Your task to perform on an android device: find which apps use the phone's location Image 0: 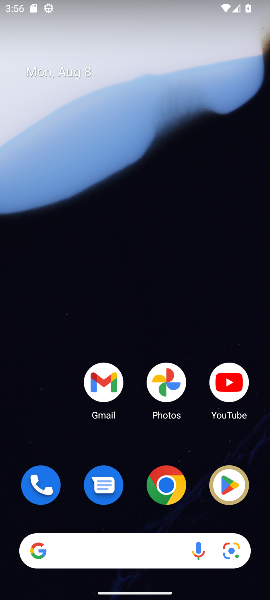
Step 0: drag from (41, 212) to (33, 186)
Your task to perform on an android device: find which apps use the phone's location Image 1: 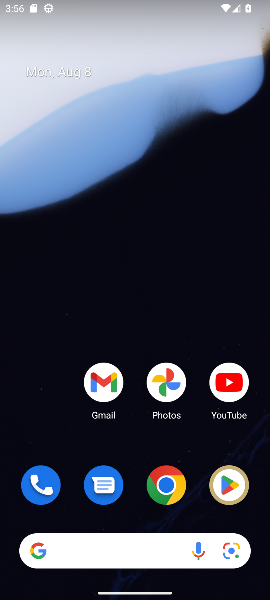
Step 1: drag from (182, 522) to (100, 163)
Your task to perform on an android device: find which apps use the phone's location Image 2: 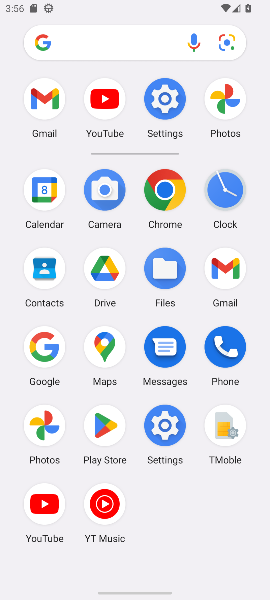
Step 2: drag from (173, 550) to (124, 245)
Your task to perform on an android device: find which apps use the phone's location Image 3: 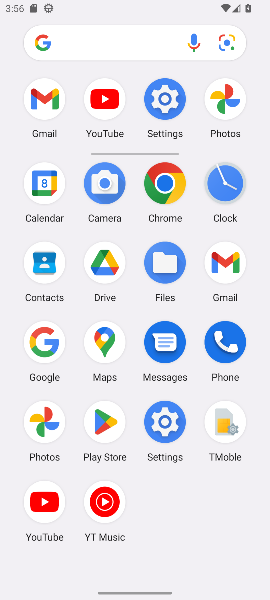
Step 3: drag from (135, 425) to (137, 305)
Your task to perform on an android device: find which apps use the phone's location Image 4: 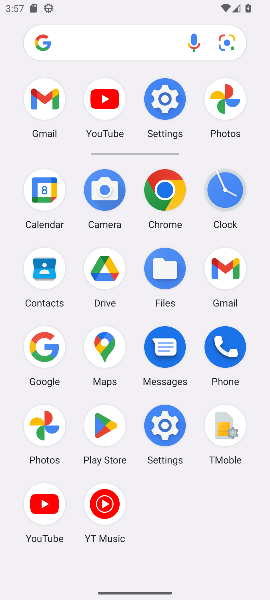
Step 4: click (170, 426)
Your task to perform on an android device: find which apps use the phone's location Image 5: 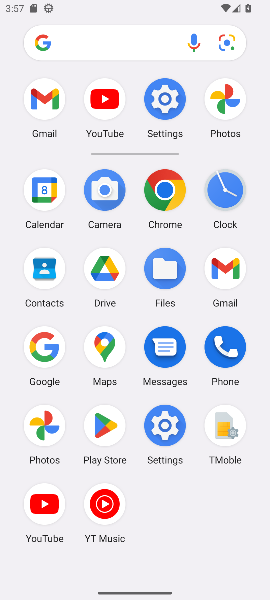
Step 5: click (164, 431)
Your task to perform on an android device: find which apps use the phone's location Image 6: 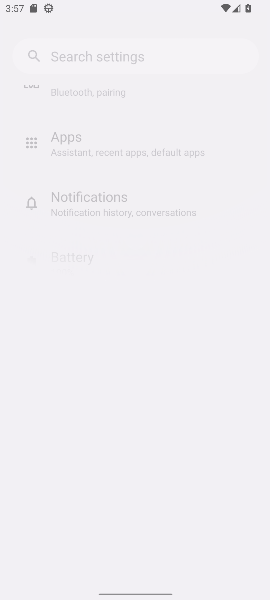
Step 6: click (167, 431)
Your task to perform on an android device: find which apps use the phone's location Image 7: 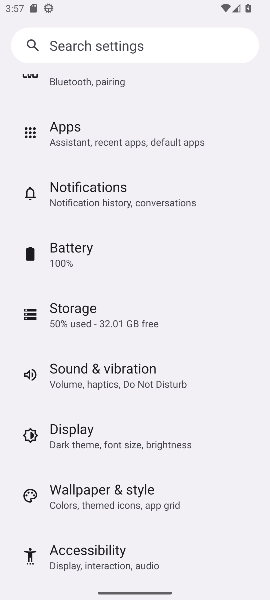
Step 7: click (167, 431)
Your task to perform on an android device: find which apps use the phone's location Image 8: 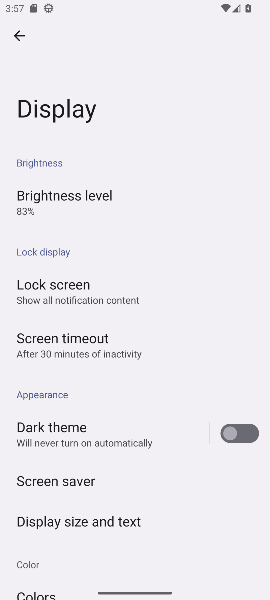
Step 8: click (11, 36)
Your task to perform on an android device: find which apps use the phone's location Image 9: 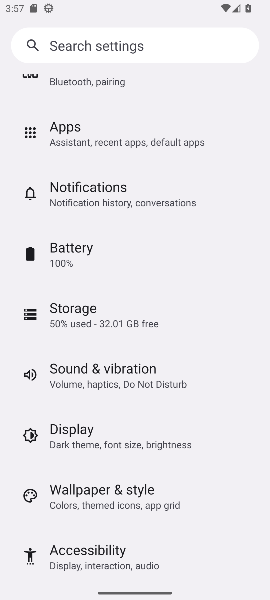
Step 9: drag from (76, 486) to (64, 208)
Your task to perform on an android device: find which apps use the phone's location Image 10: 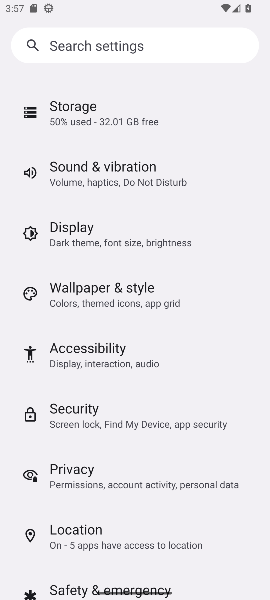
Step 10: drag from (100, 464) to (82, 123)
Your task to perform on an android device: find which apps use the phone's location Image 11: 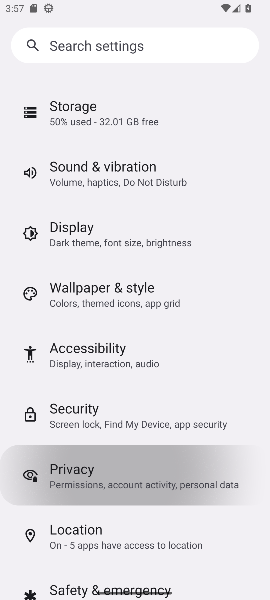
Step 11: drag from (96, 405) to (81, 163)
Your task to perform on an android device: find which apps use the phone's location Image 12: 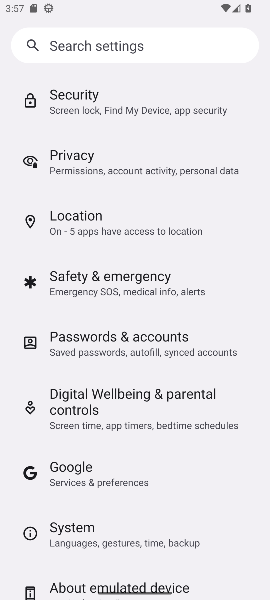
Step 12: drag from (93, 445) to (60, 188)
Your task to perform on an android device: find which apps use the phone's location Image 13: 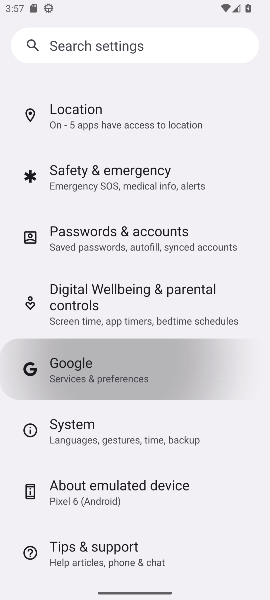
Step 13: drag from (87, 261) to (87, 102)
Your task to perform on an android device: find which apps use the phone's location Image 14: 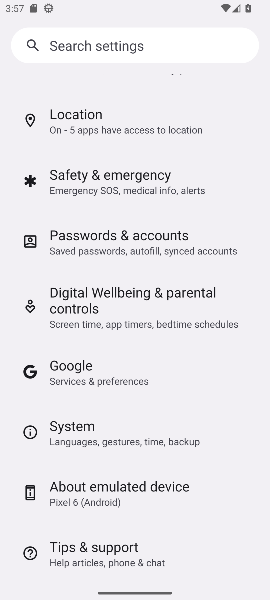
Step 14: click (101, 128)
Your task to perform on an android device: find which apps use the phone's location Image 15: 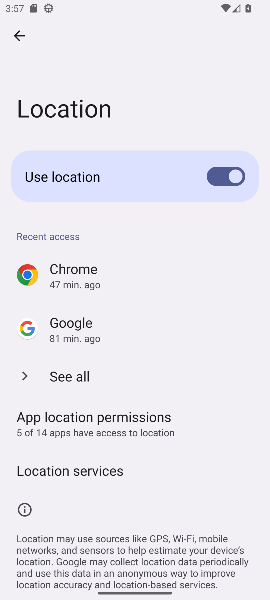
Step 15: drag from (82, 238) to (66, 159)
Your task to perform on an android device: find which apps use the phone's location Image 16: 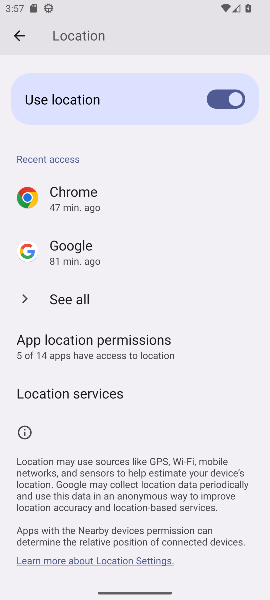
Step 16: drag from (92, 411) to (60, 177)
Your task to perform on an android device: find which apps use the phone's location Image 17: 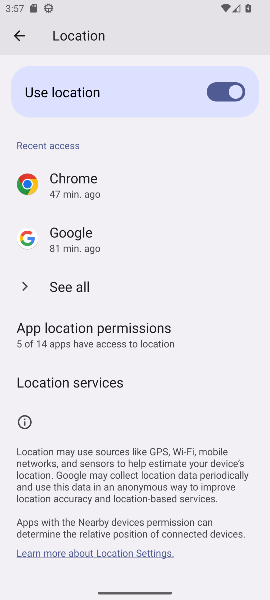
Step 17: drag from (104, 370) to (79, 68)
Your task to perform on an android device: find which apps use the phone's location Image 18: 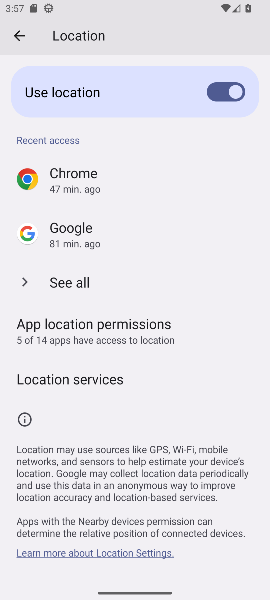
Step 18: drag from (116, 406) to (70, 157)
Your task to perform on an android device: find which apps use the phone's location Image 19: 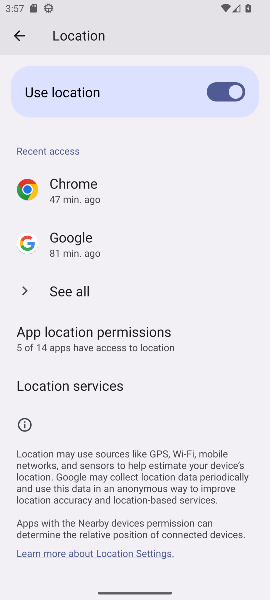
Step 19: click (114, 58)
Your task to perform on an android device: find which apps use the phone's location Image 20: 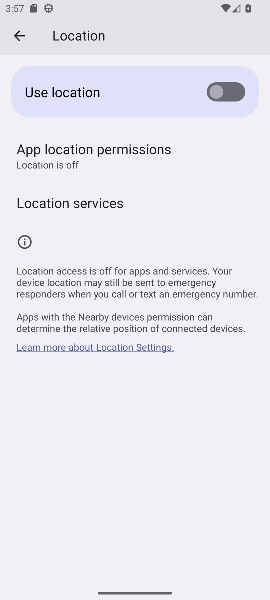
Step 20: click (13, 32)
Your task to perform on an android device: find which apps use the phone's location Image 21: 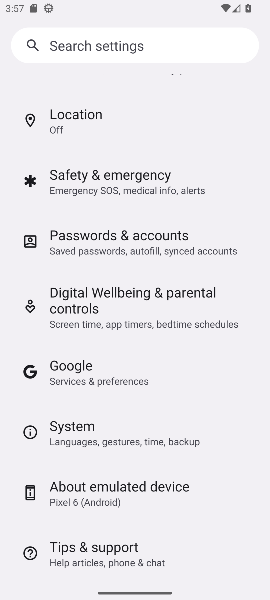
Step 21: task complete